Your task to perform on an android device: Search for sushi restaurants on Maps Image 0: 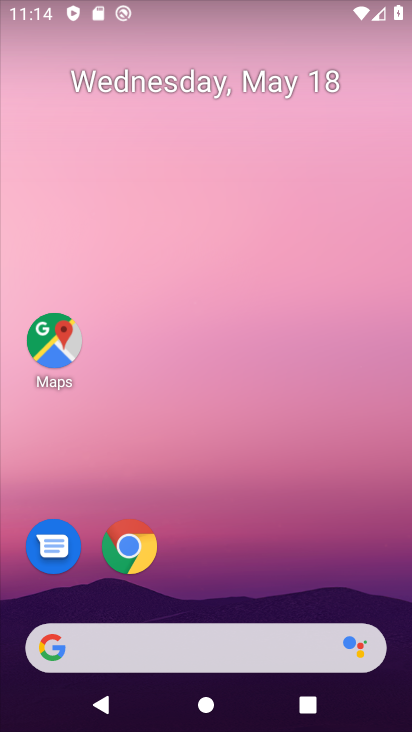
Step 0: drag from (258, 553) to (252, 373)
Your task to perform on an android device: Search for sushi restaurants on Maps Image 1: 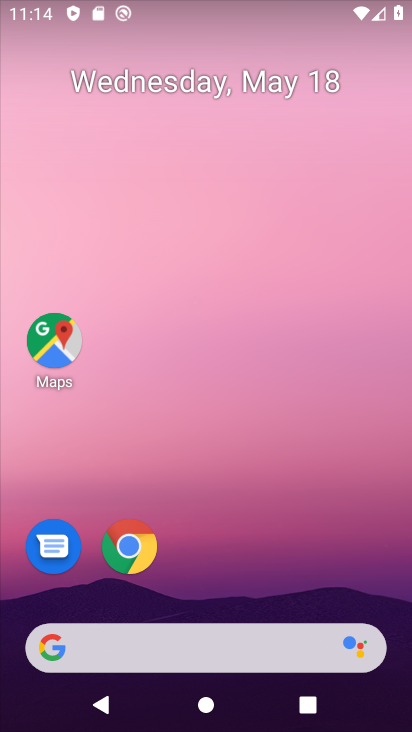
Step 1: click (55, 347)
Your task to perform on an android device: Search for sushi restaurants on Maps Image 2: 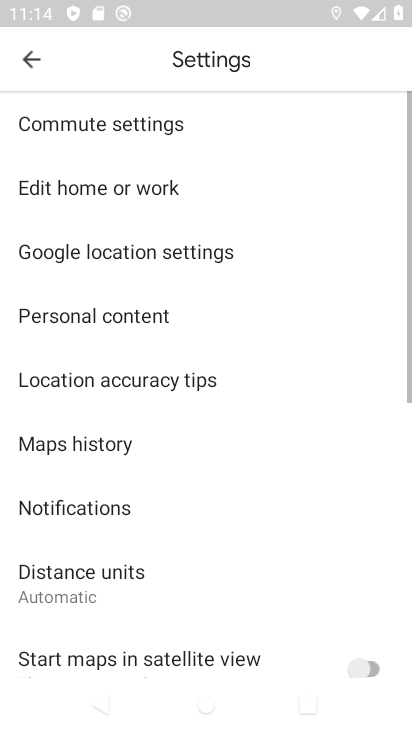
Step 2: press back button
Your task to perform on an android device: Search for sushi restaurants on Maps Image 3: 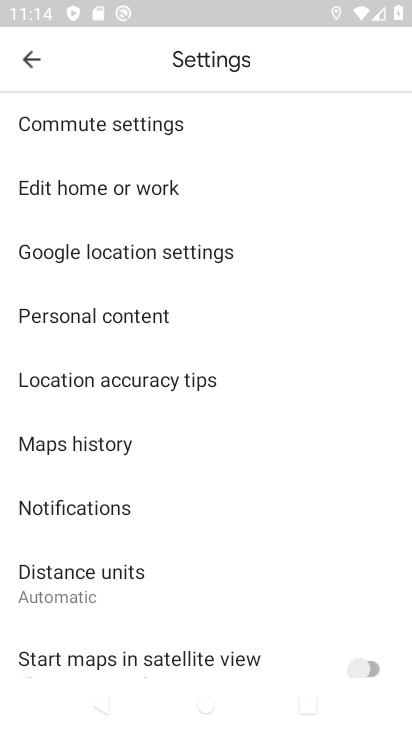
Step 3: press back button
Your task to perform on an android device: Search for sushi restaurants on Maps Image 4: 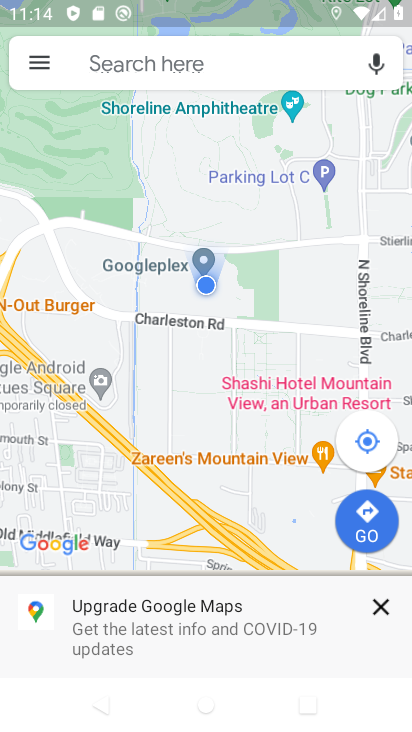
Step 4: click (186, 65)
Your task to perform on an android device: Search for sushi restaurants on Maps Image 5: 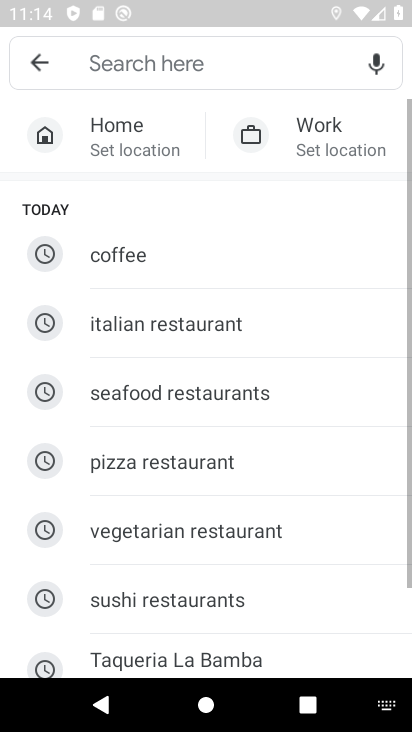
Step 5: click (182, 596)
Your task to perform on an android device: Search for sushi restaurants on Maps Image 6: 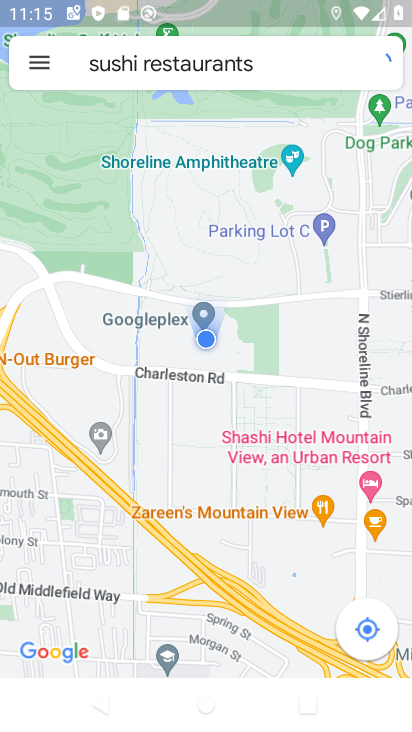
Step 6: task complete